Your task to perform on an android device: Search for "macbook pro" on ebay.com, select the first entry, and add it to the cart. Image 0: 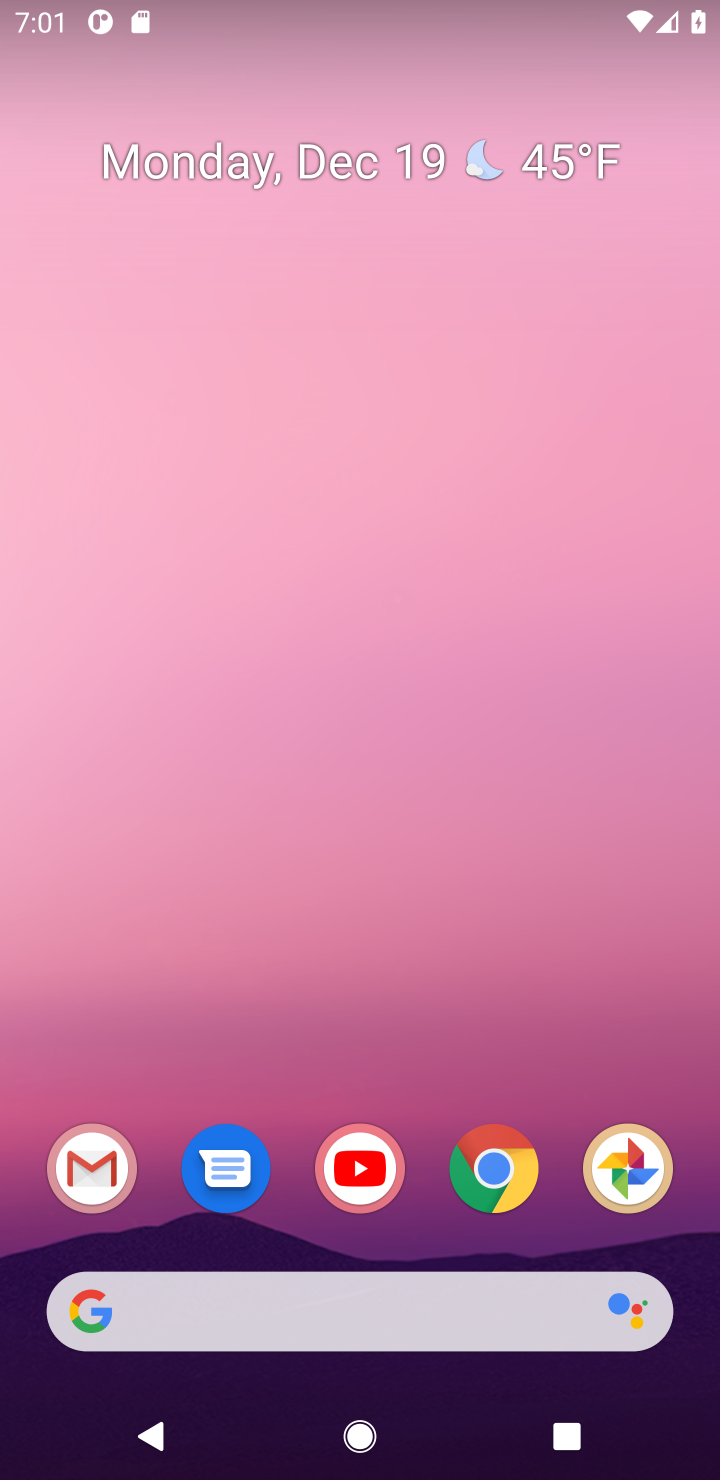
Step 0: click (509, 1165)
Your task to perform on an android device: Search for "macbook pro" on ebay.com, select the first entry, and add it to the cart. Image 1: 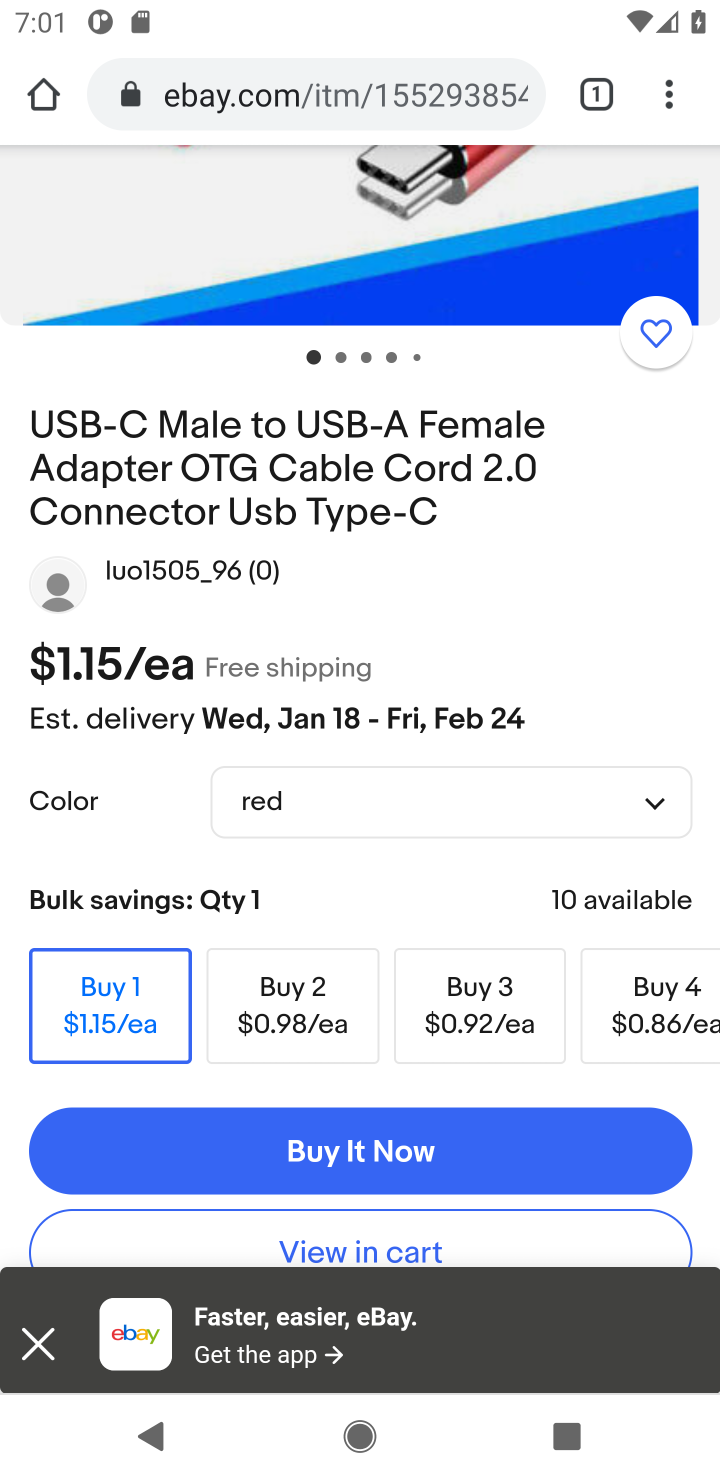
Step 1: drag from (305, 693) to (313, 1256)
Your task to perform on an android device: Search for "macbook pro" on ebay.com, select the first entry, and add it to the cart. Image 2: 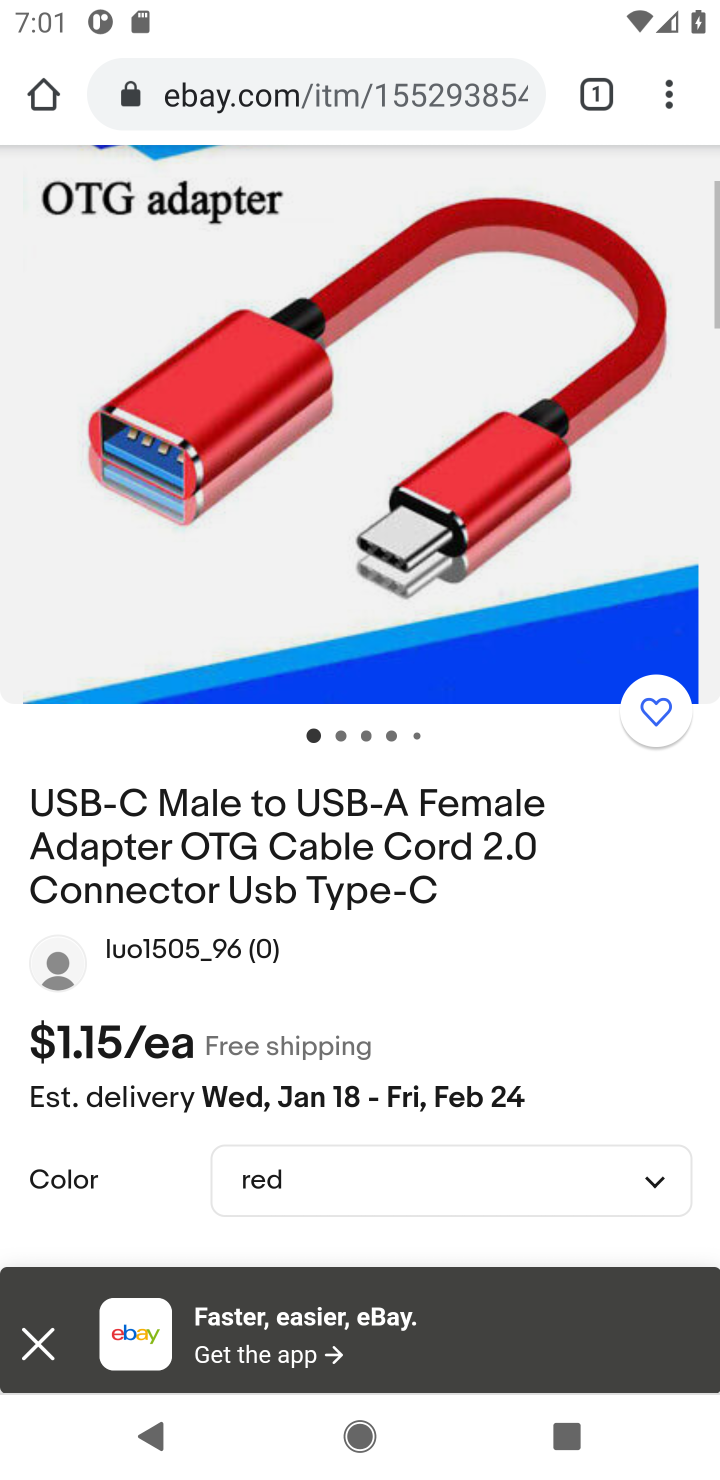
Step 2: drag from (275, 294) to (292, 1137)
Your task to perform on an android device: Search for "macbook pro" on ebay.com, select the first entry, and add it to the cart. Image 3: 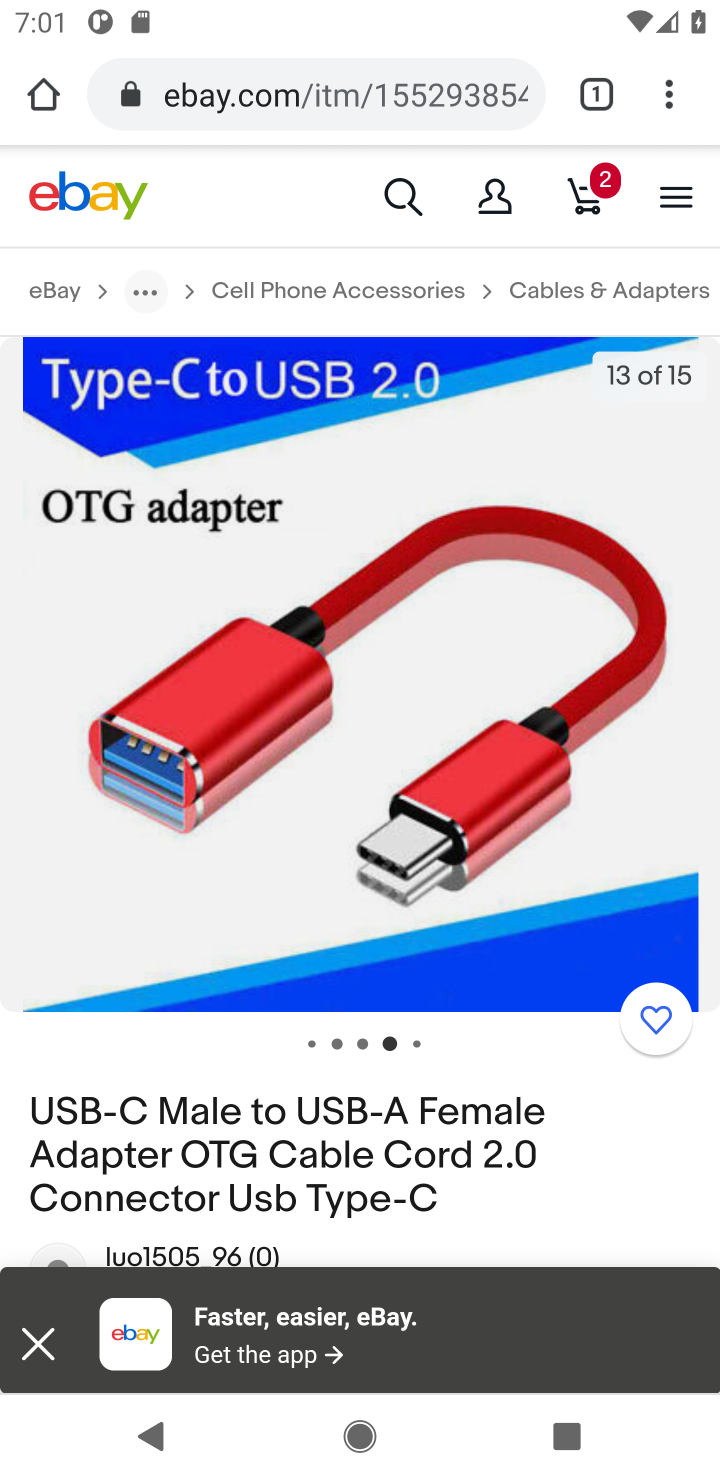
Step 3: click (398, 202)
Your task to perform on an android device: Search for "macbook pro" on ebay.com, select the first entry, and add it to the cart. Image 4: 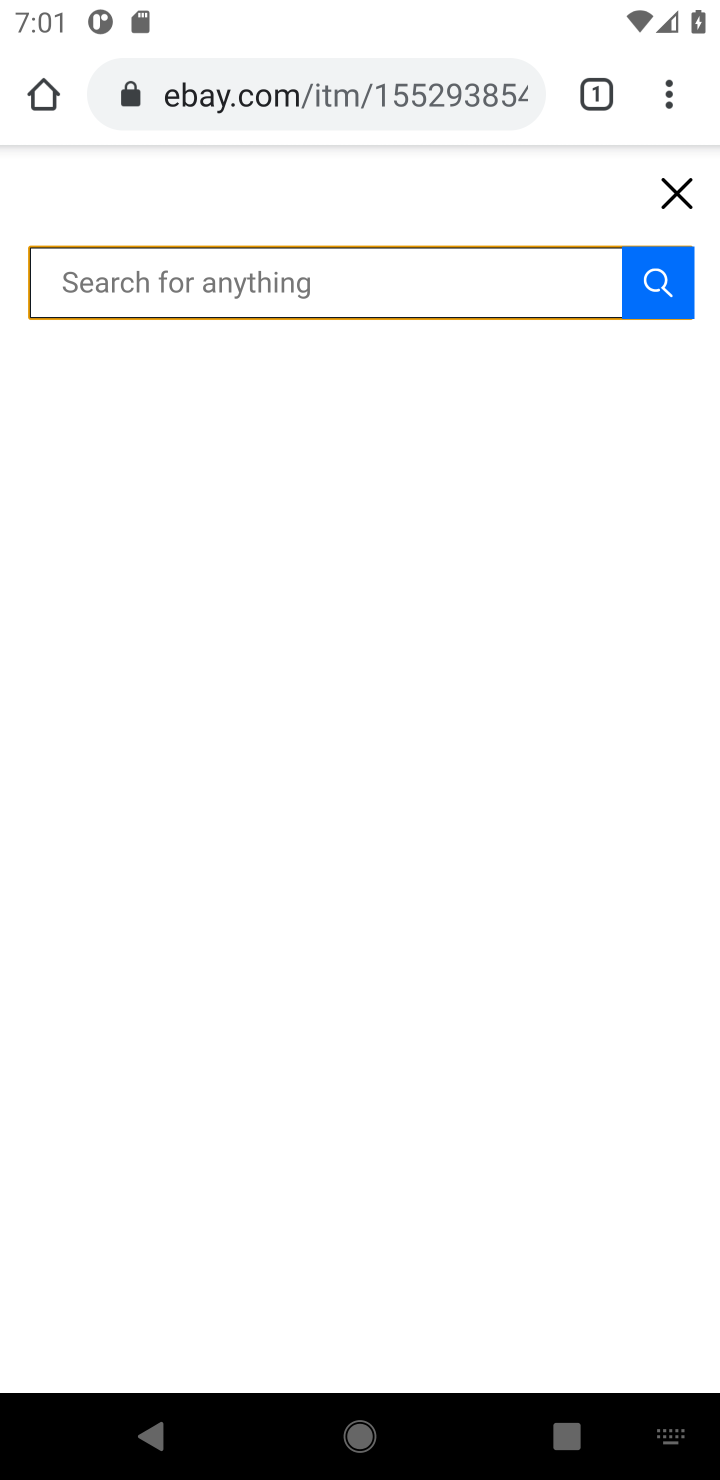
Step 4: type "macbook pro"
Your task to perform on an android device: Search for "macbook pro" on ebay.com, select the first entry, and add it to the cart. Image 5: 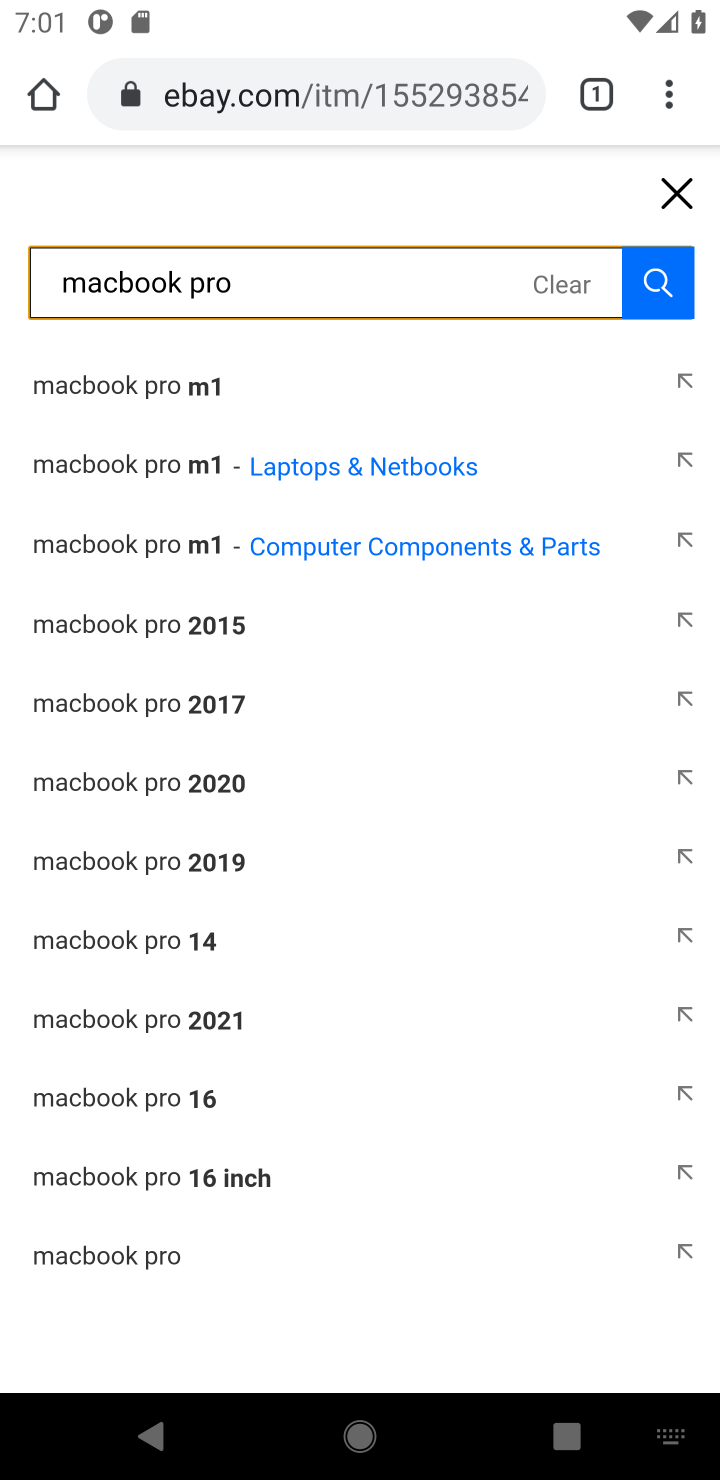
Step 5: click (131, 1253)
Your task to perform on an android device: Search for "macbook pro" on ebay.com, select the first entry, and add it to the cart. Image 6: 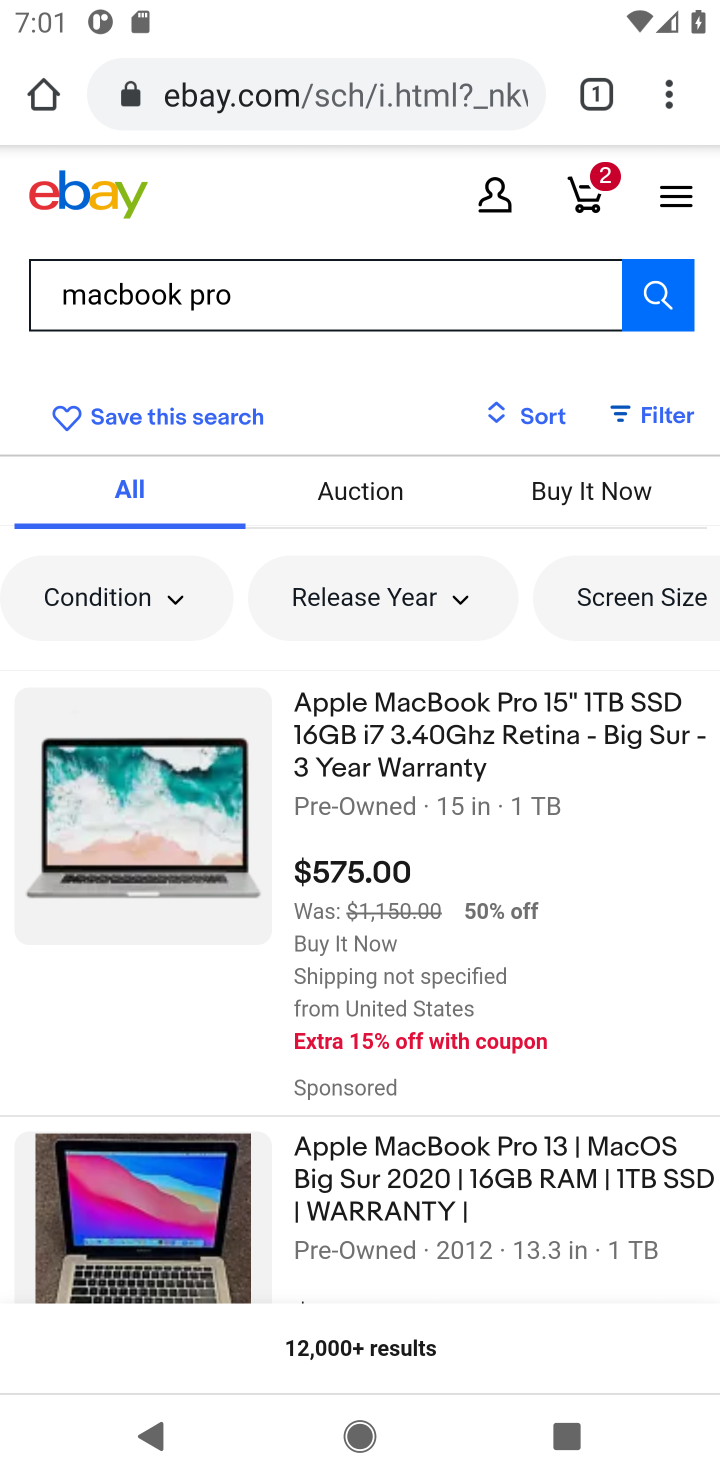
Step 6: click (358, 688)
Your task to perform on an android device: Search for "macbook pro" on ebay.com, select the first entry, and add it to the cart. Image 7: 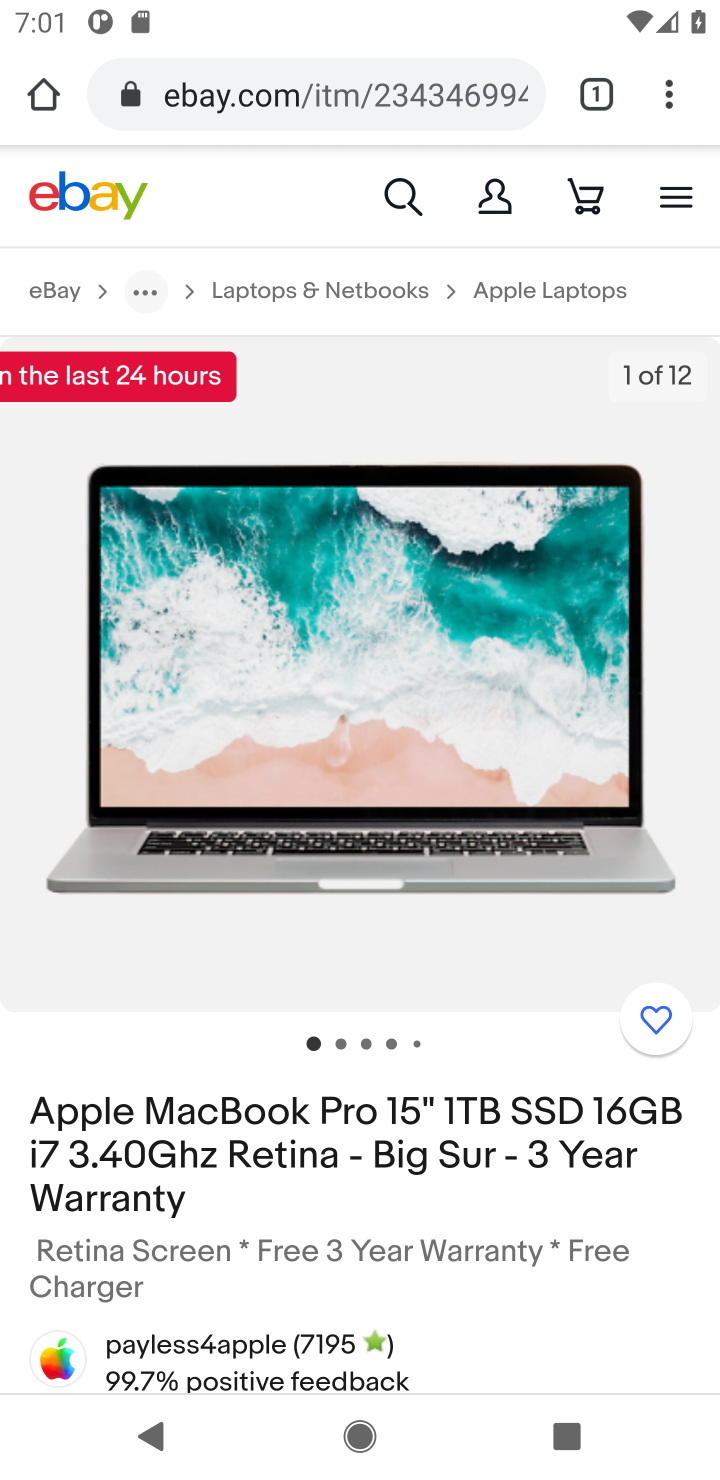
Step 7: drag from (354, 1029) to (381, 483)
Your task to perform on an android device: Search for "macbook pro" on ebay.com, select the first entry, and add it to the cart. Image 8: 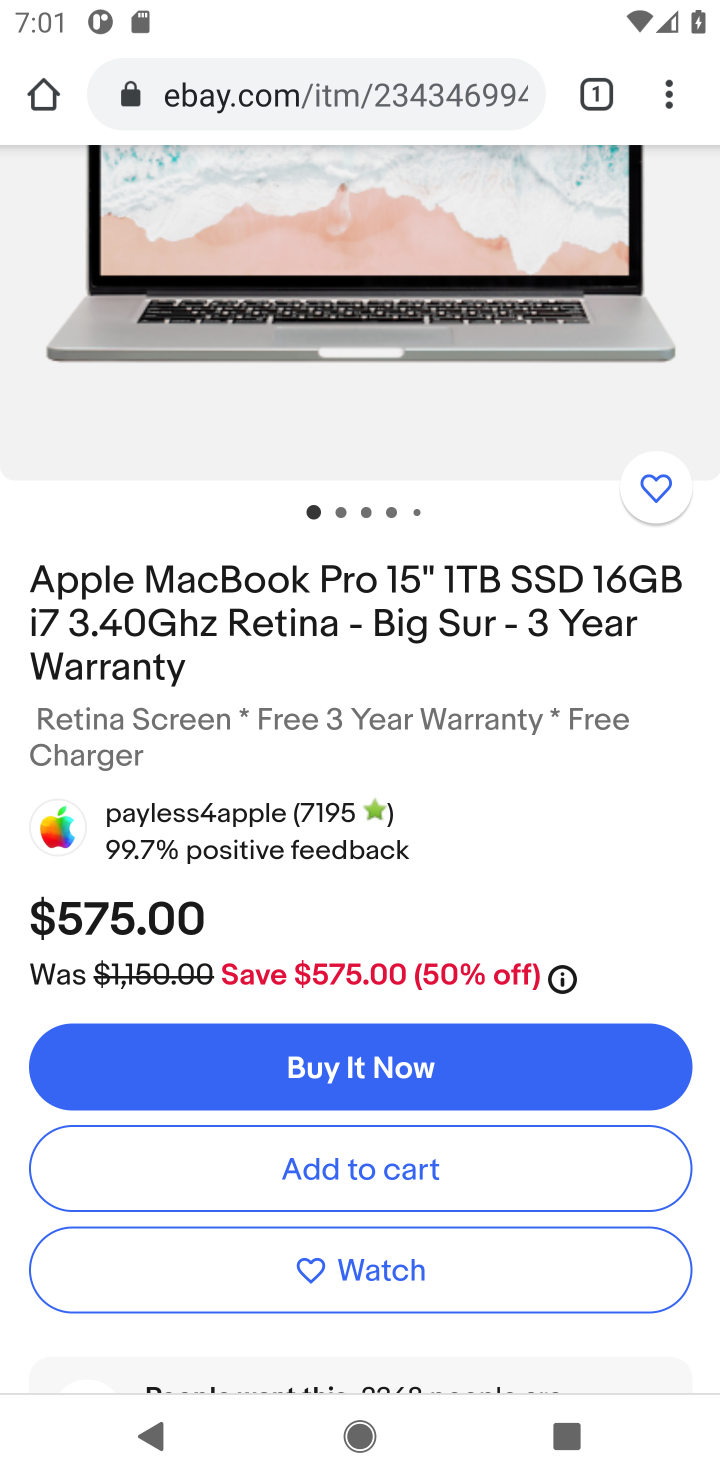
Step 8: click (343, 1178)
Your task to perform on an android device: Search for "macbook pro" on ebay.com, select the first entry, and add it to the cart. Image 9: 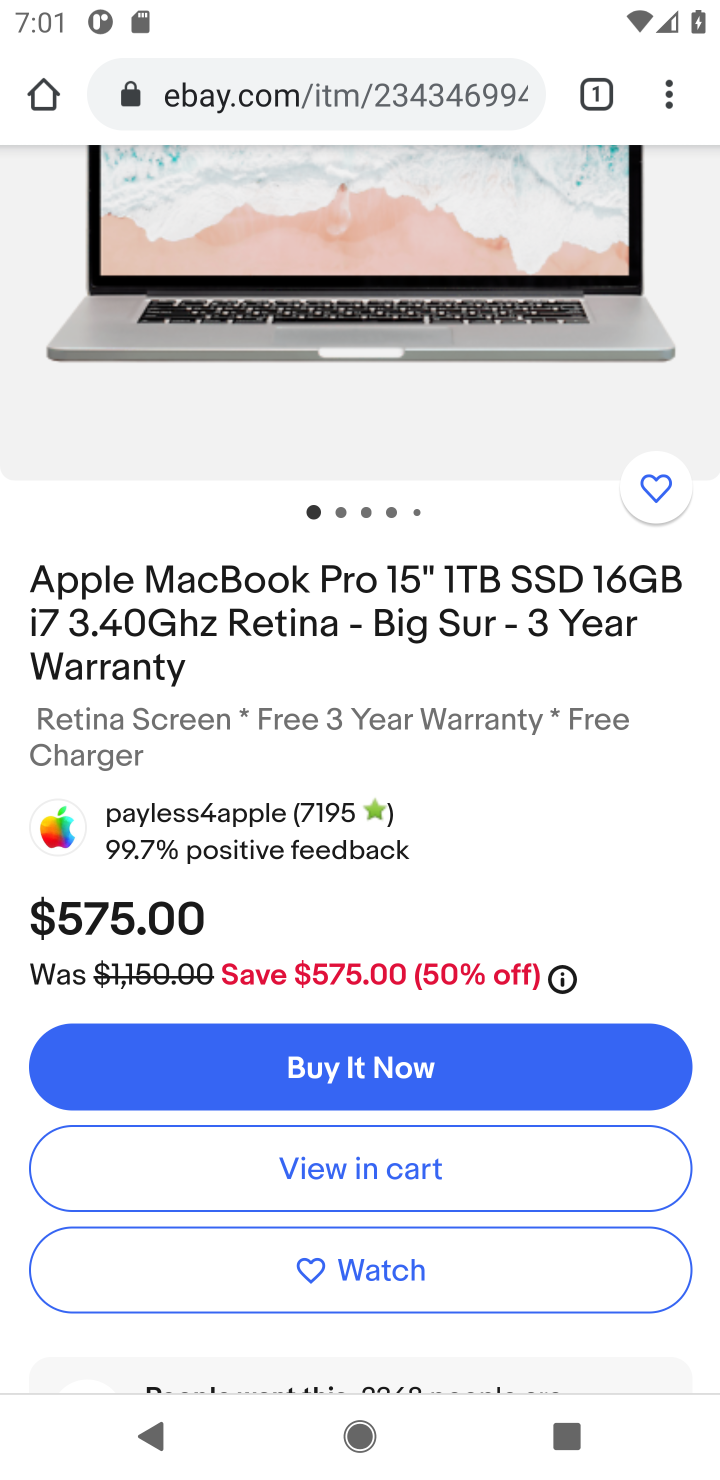
Step 9: task complete